Your task to perform on an android device: Search for Mexican restaurants on Maps Image 0: 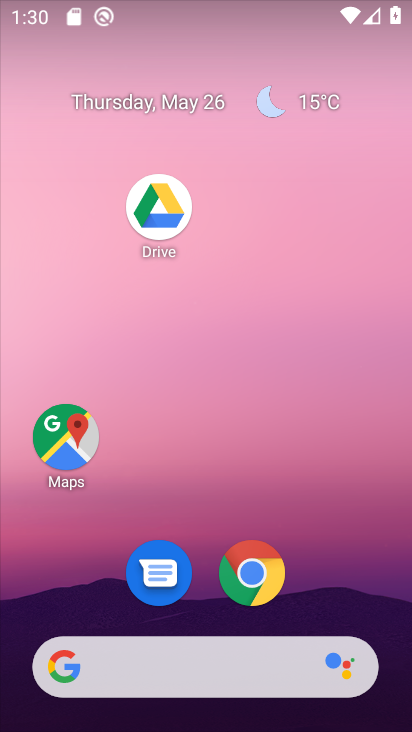
Step 0: click (66, 428)
Your task to perform on an android device: Search for Mexican restaurants on Maps Image 1: 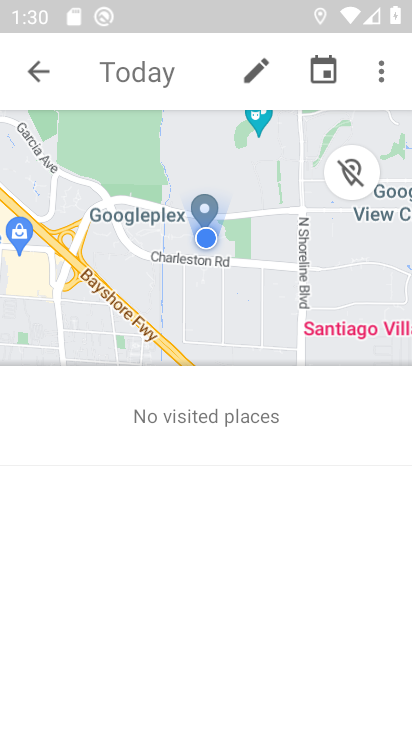
Step 1: click (38, 62)
Your task to perform on an android device: Search for Mexican restaurants on Maps Image 2: 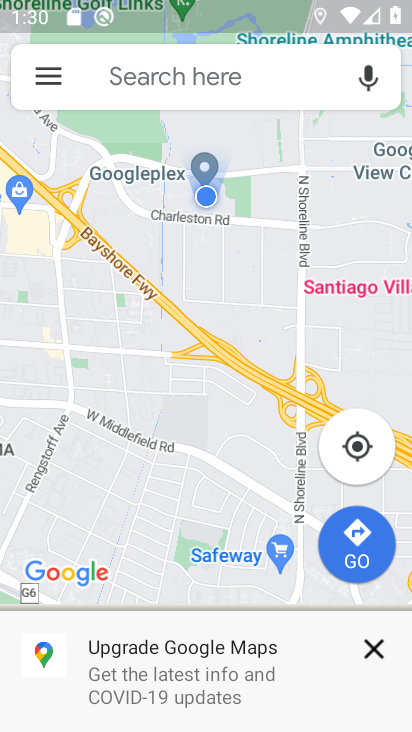
Step 2: click (263, 83)
Your task to perform on an android device: Search for Mexican restaurants on Maps Image 3: 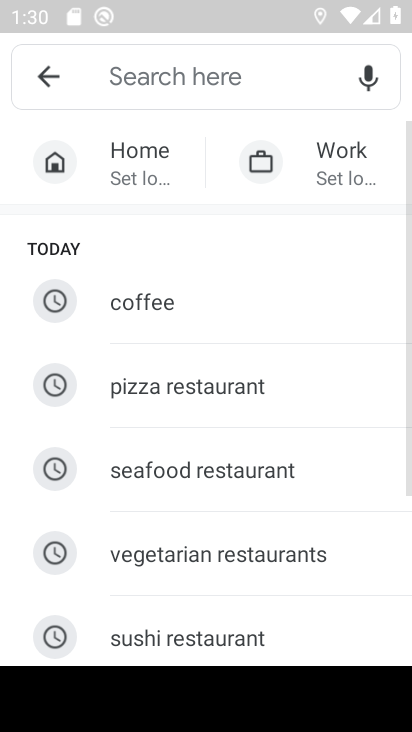
Step 3: drag from (238, 592) to (225, 280)
Your task to perform on an android device: Search for Mexican restaurants on Maps Image 4: 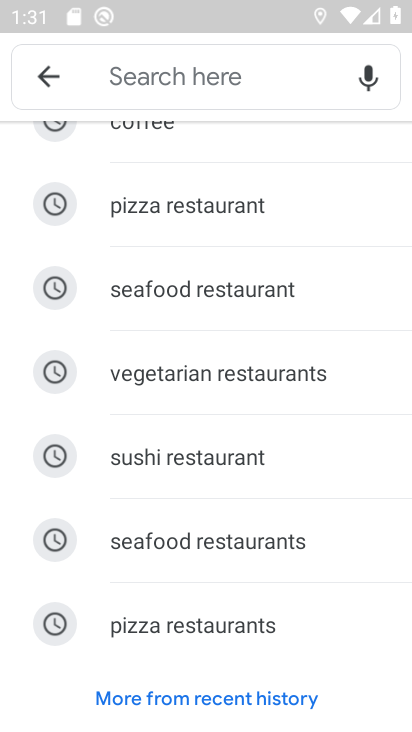
Step 4: click (166, 82)
Your task to perform on an android device: Search for Mexican restaurants on Maps Image 5: 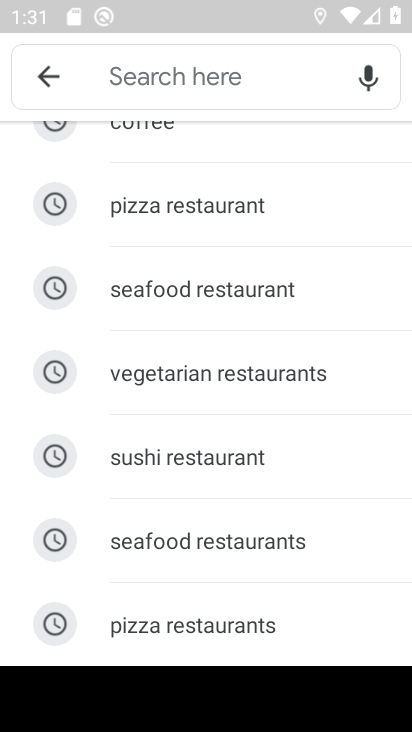
Step 5: type "mexican"
Your task to perform on an android device: Search for Mexican restaurants on Maps Image 6: 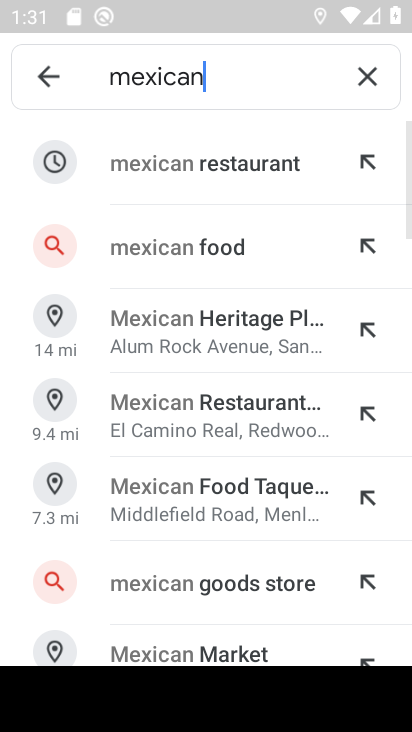
Step 6: click (249, 153)
Your task to perform on an android device: Search for Mexican restaurants on Maps Image 7: 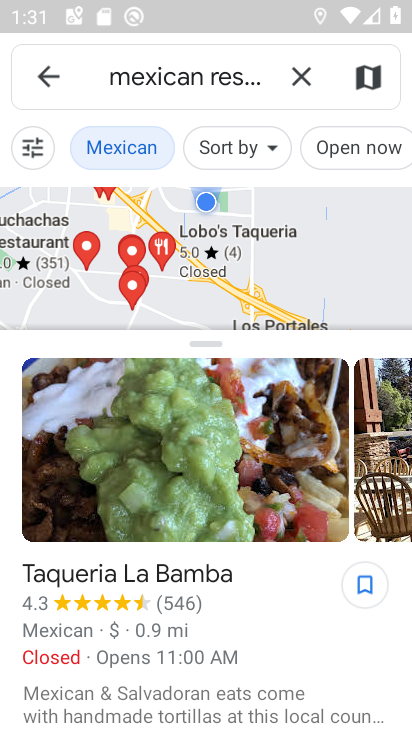
Step 7: task complete